Your task to perform on an android device: What's the weather? Image 0: 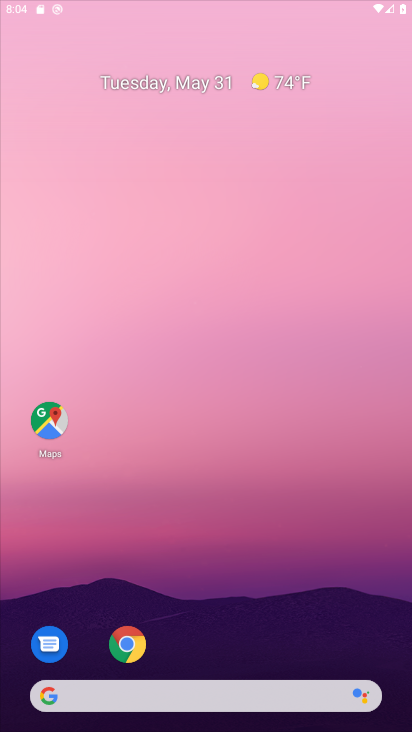
Step 0: press home button
Your task to perform on an android device: What's the weather? Image 1: 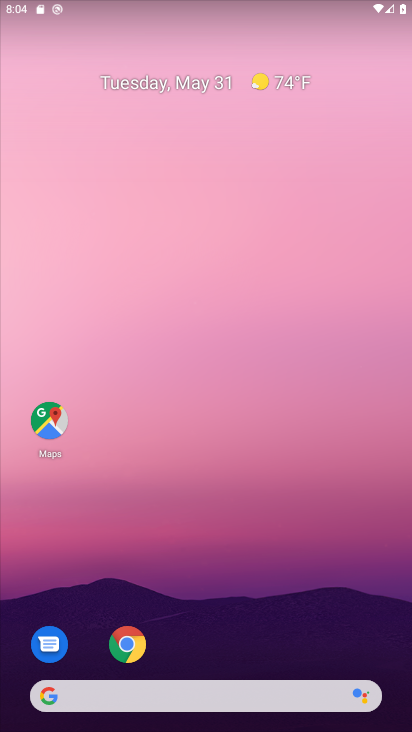
Step 1: click (283, 74)
Your task to perform on an android device: What's the weather? Image 2: 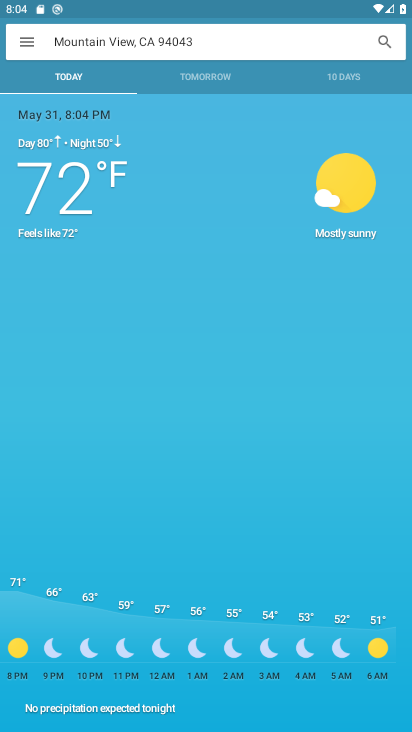
Step 2: task complete